Your task to perform on an android device: When is my next meeting? Image 0: 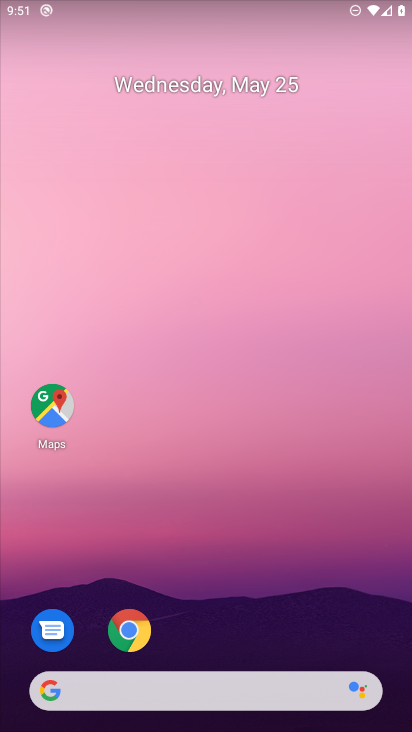
Step 0: drag from (249, 665) to (305, 158)
Your task to perform on an android device: When is my next meeting? Image 1: 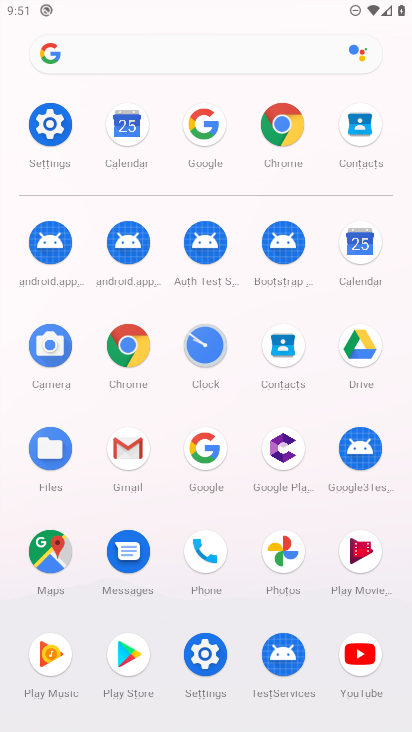
Step 1: click (369, 242)
Your task to perform on an android device: When is my next meeting? Image 2: 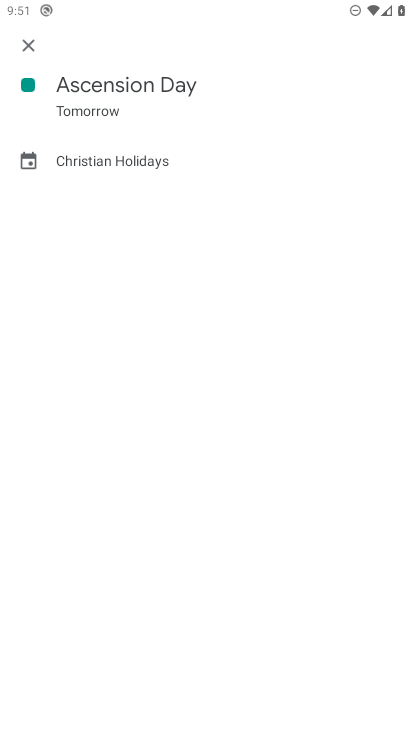
Step 2: click (33, 51)
Your task to perform on an android device: When is my next meeting? Image 3: 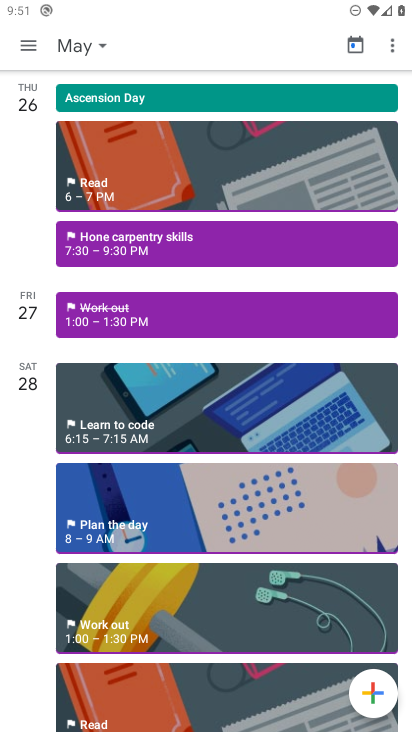
Step 3: click (90, 44)
Your task to perform on an android device: When is my next meeting? Image 4: 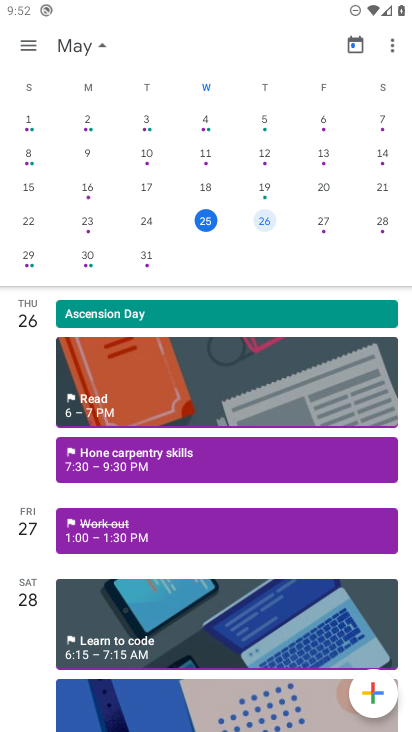
Step 4: click (205, 222)
Your task to perform on an android device: When is my next meeting? Image 5: 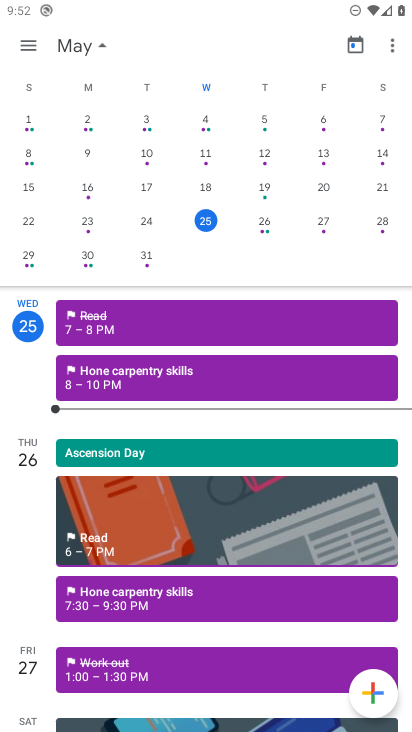
Step 5: click (136, 334)
Your task to perform on an android device: When is my next meeting? Image 6: 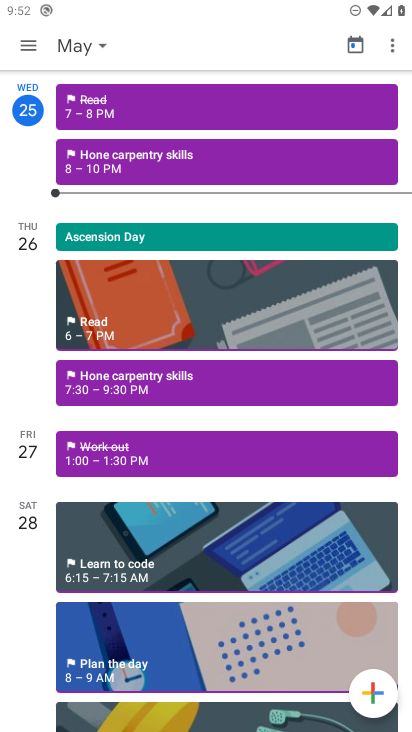
Step 6: click (147, 114)
Your task to perform on an android device: When is my next meeting? Image 7: 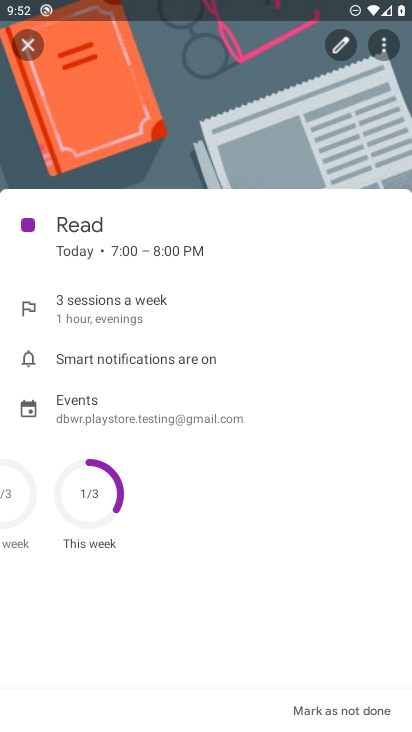
Step 7: task complete